Your task to perform on an android device: Show me productivity apps on the Play Store Image 0: 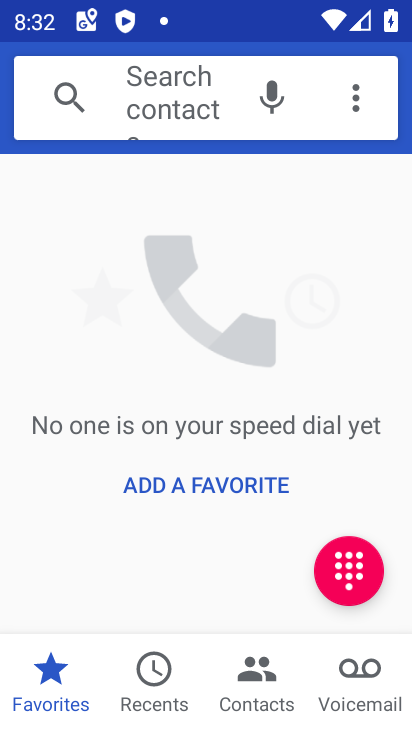
Step 0: press home button
Your task to perform on an android device: Show me productivity apps on the Play Store Image 1: 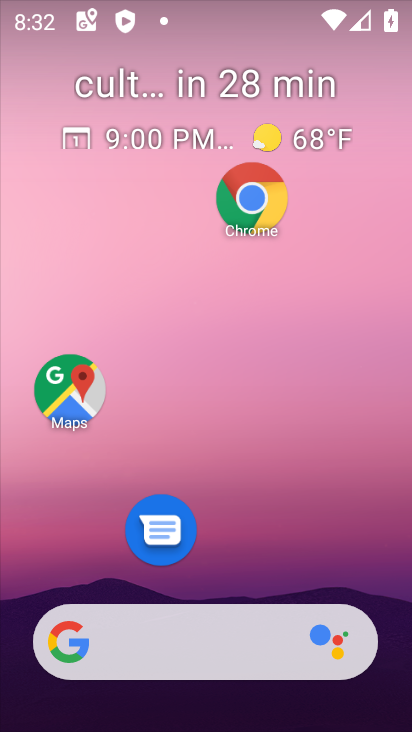
Step 1: drag from (219, 567) to (197, 200)
Your task to perform on an android device: Show me productivity apps on the Play Store Image 2: 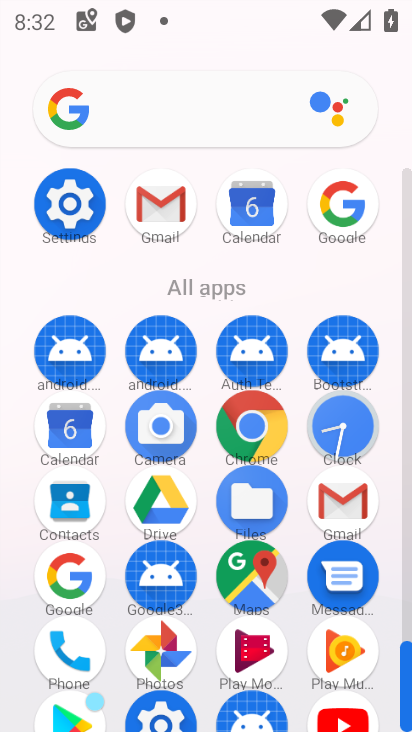
Step 2: drag from (102, 648) to (125, 339)
Your task to perform on an android device: Show me productivity apps on the Play Store Image 3: 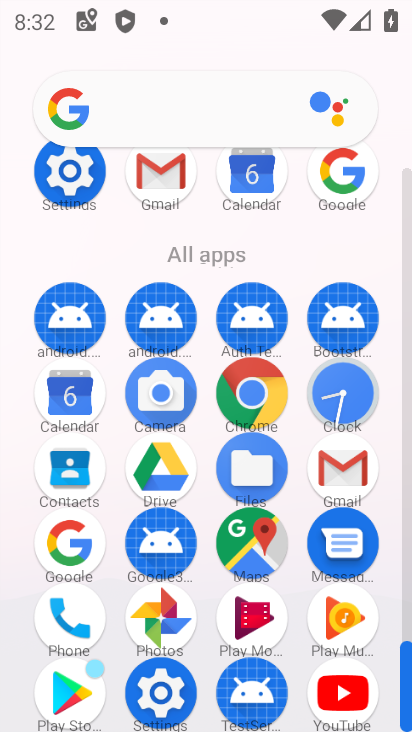
Step 3: click (85, 673)
Your task to perform on an android device: Show me productivity apps on the Play Store Image 4: 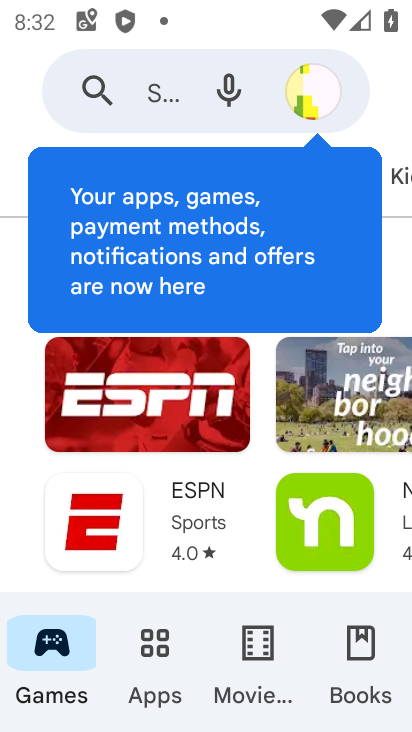
Step 4: click (143, 668)
Your task to perform on an android device: Show me productivity apps on the Play Store Image 5: 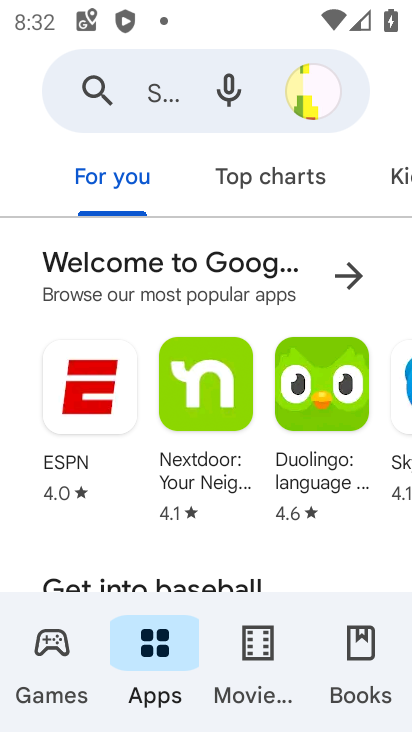
Step 5: drag from (296, 179) to (131, 179)
Your task to perform on an android device: Show me productivity apps on the Play Store Image 6: 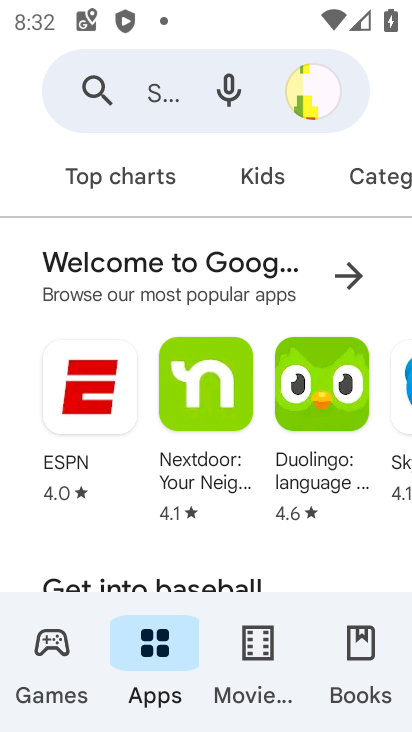
Step 6: drag from (317, 178) to (178, 181)
Your task to perform on an android device: Show me productivity apps on the Play Store Image 7: 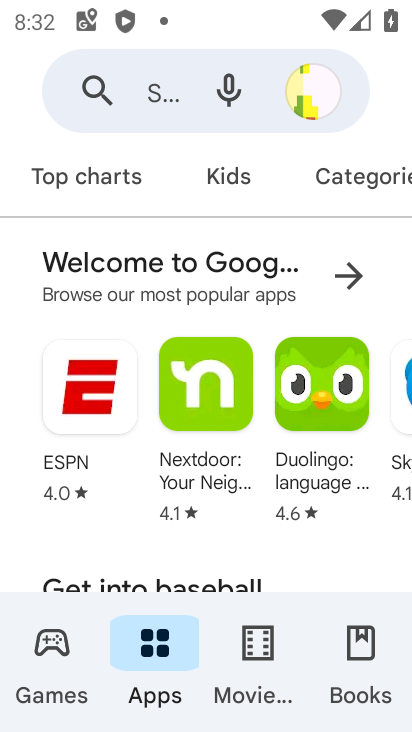
Step 7: drag from (243, 176) to (99, 180)
Your task to perform on an android device: Show me productivity apps on the Play Store Image 8: 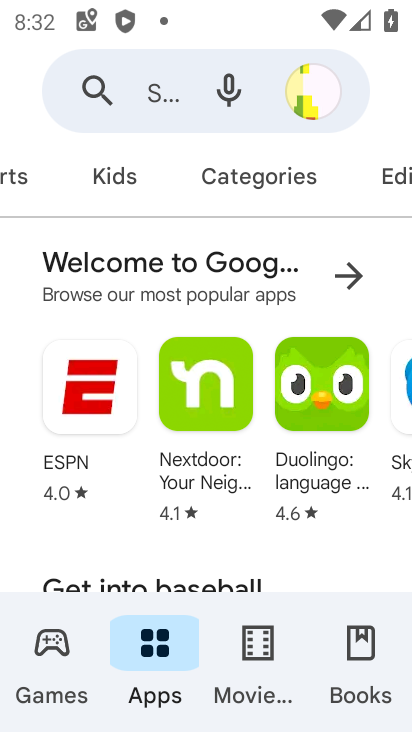
Step 8: click (256, 177)
Your task to perform on an android device: Show me productivity apps on the Play Store Image 9: 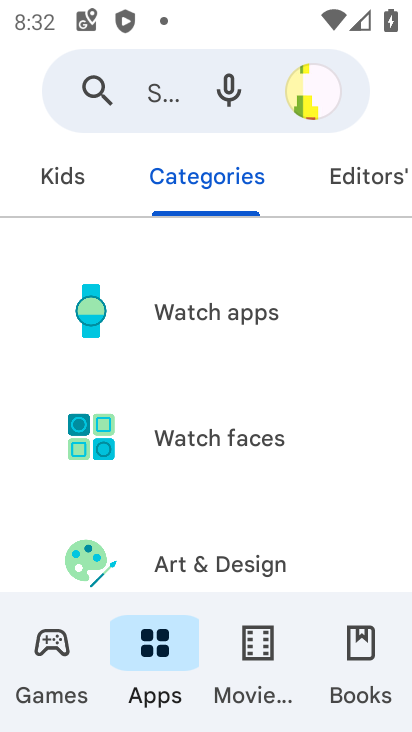
Step 9: drag from (243, 530) to (274, 236)
Your task to perform on an android device: Show me productivity apps on the Play Store Image 10: 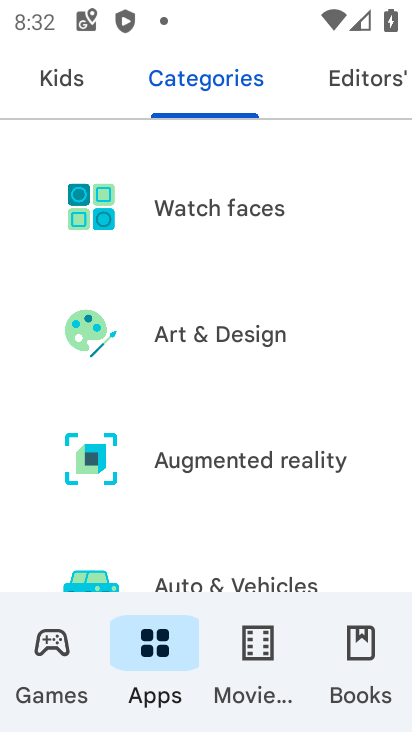
Step 10: drag from (258, 504) to (281, 207)
Your task to perform on an android device: Show me productivity apps on the Play Store Image 11: 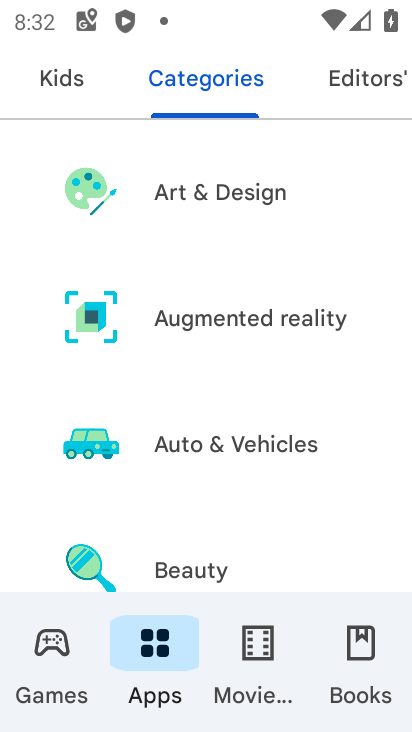
Step 11: drag from (269, 444) to (280, 189)
Your task to perform on an android device: Show me productivity apps on the Play Store Image 12: 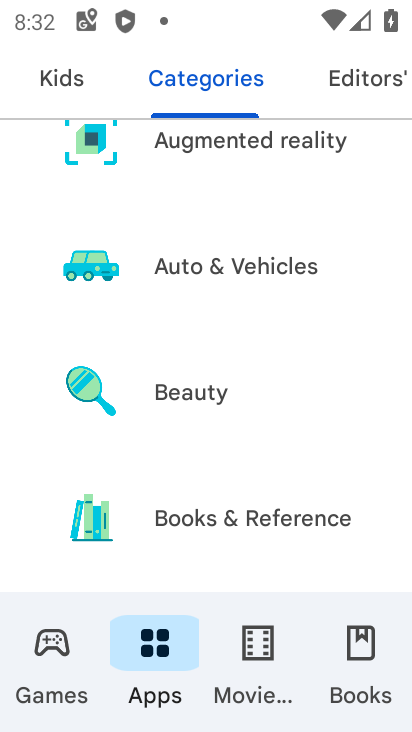
Step 12: drag from (257, 486) to (270, 237)
Your task to perform on an android device: Show me productivity apps on the Play Store Image 13: 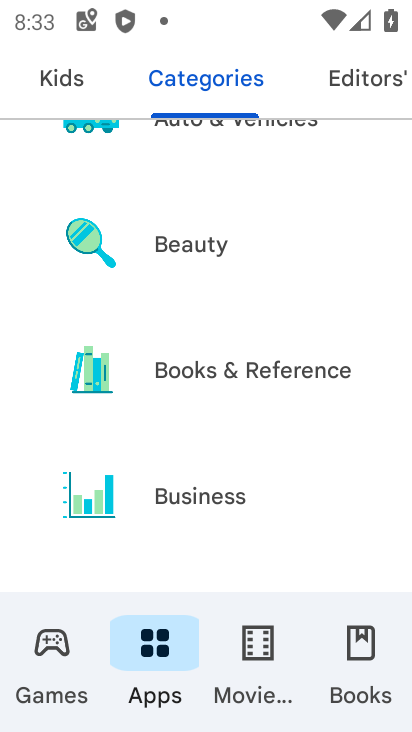
Step 13: drag from (251, 508) to (283, 237)
Your task to perform on an android device: Show me productivity apps on the Play Store Image 14: 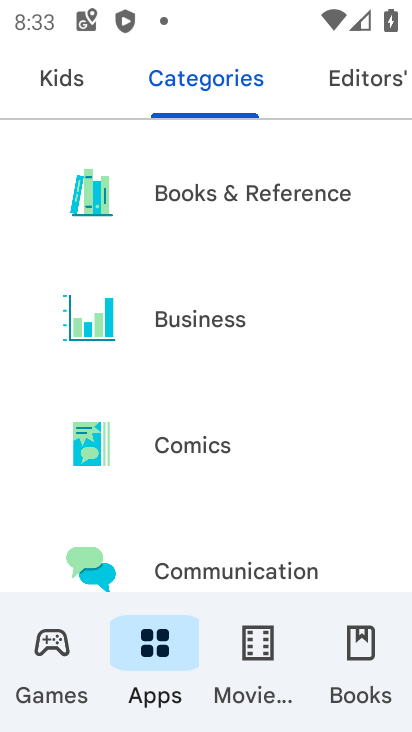
Step 14: drag from (234, 474) to (265, 228)
Your task to perform on an android device: Show me productivity apps on the Play Store Image 15: 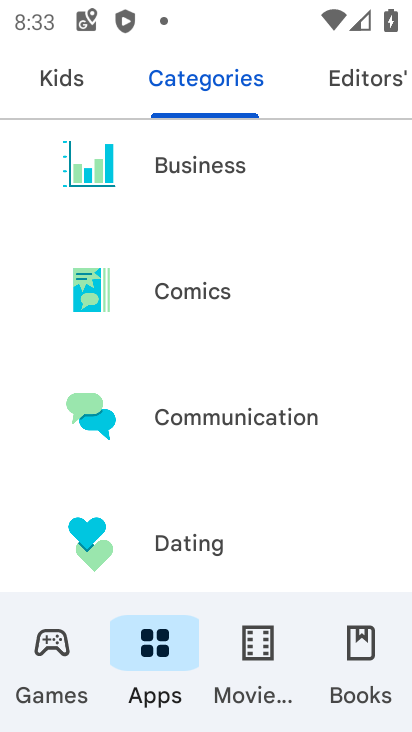
Step 15: drag from (272, 527) to (315, 245)
Your task to perform on an android device: Show me productivity apps on the Play Store Image 16: 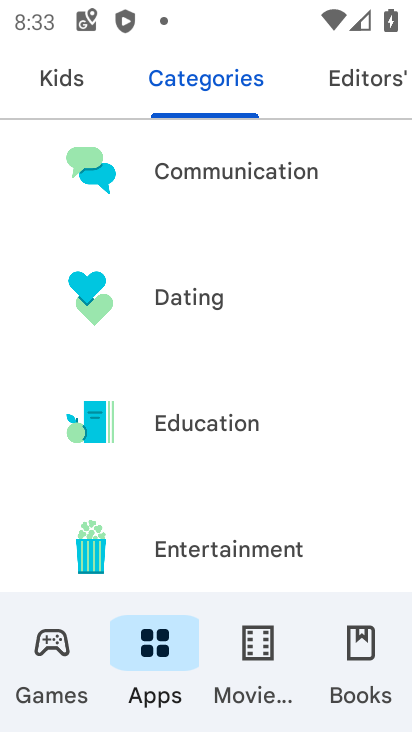
Step 16: drag from (298, 480) to (303, 221)
Your task to perform on an android device: Show me productivity apps on the Play Store Image 17: 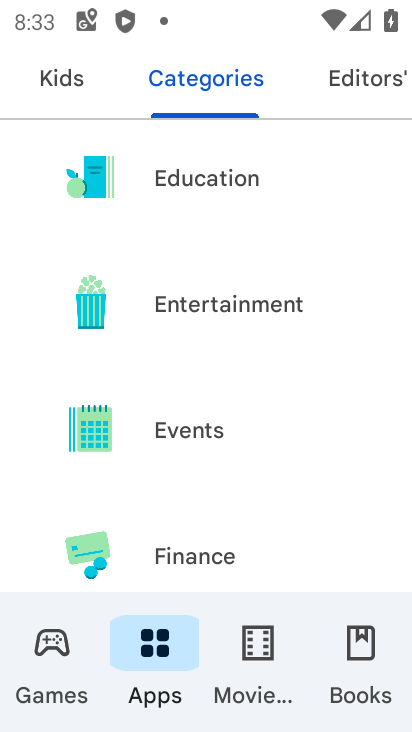
Step 17: drag from (304, 475) to (304, 252)
Your task to perform on an android device: Show me productivity apps on the Play Store Image 18: 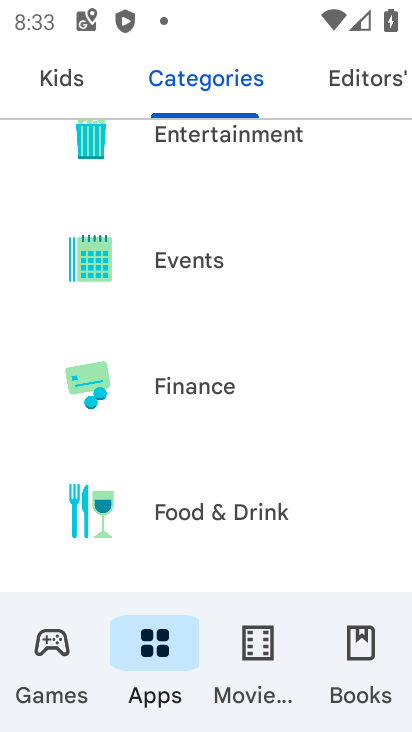
Step 18: drag from (282, 537) to (286, 217)
Your task to perform on an android device: Show me productivity apps on the Play Store Image 19: 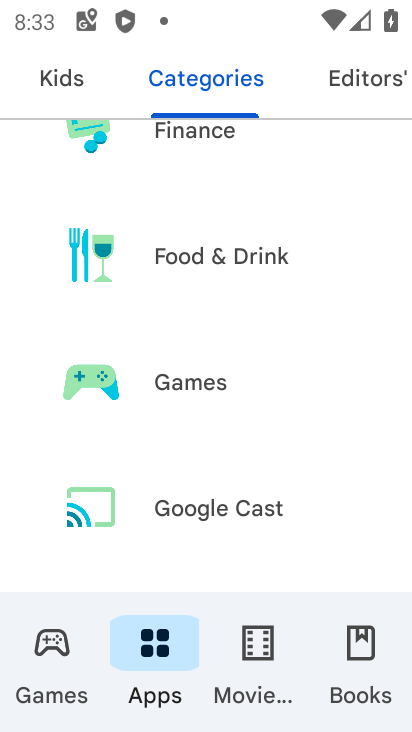
Step 19: drag from (286, 484) to (255, 158)
Your task to perform on an android device: Show me productivity apps on the Play Store Image 20: 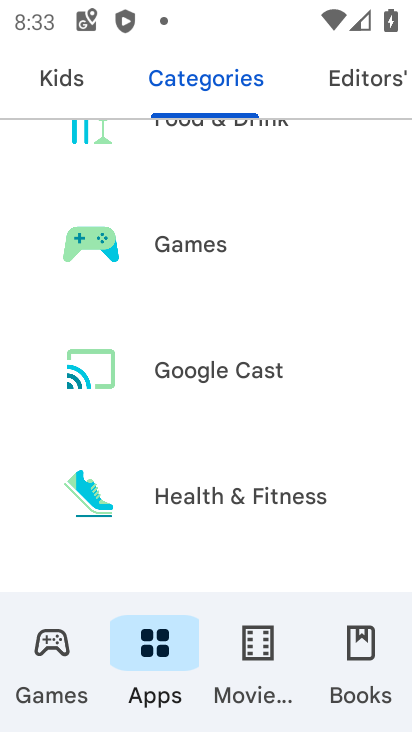
Step 20: drag from (267, 471) to (282, 181)
Your task to perform on an android device: Show me productivity apps on the Play Store Image 21: 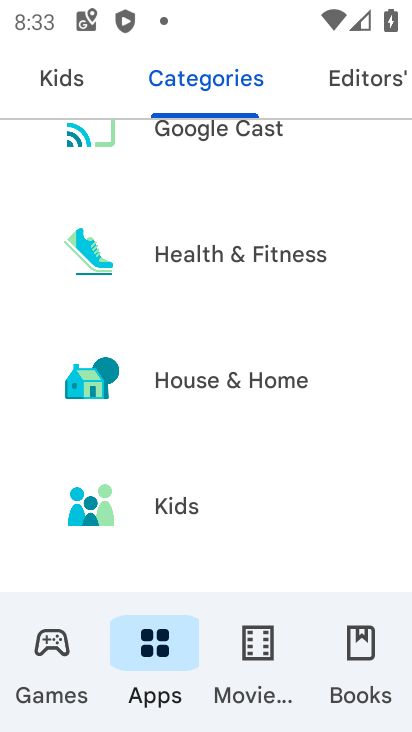
Step 21: drag from (255, 486) to (271, 157)
Your task to perform on an android device: Show me productivity apps on the Play Store Image 22: 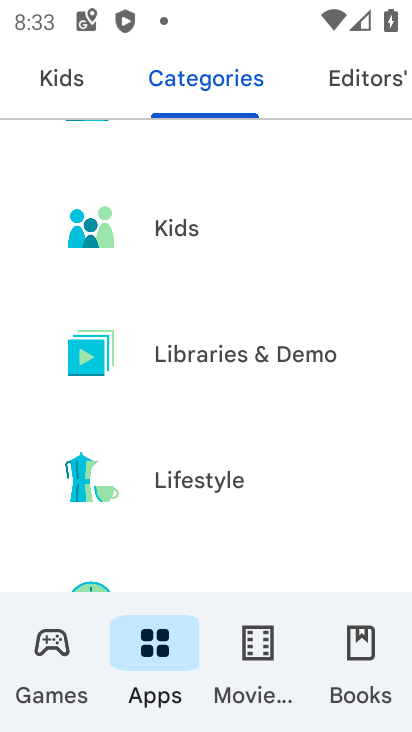
Step 22: drag from (271, 519) to (258, 220)
Your task to perform on an android device: Show me productivity apps on the Play Store Image 23: 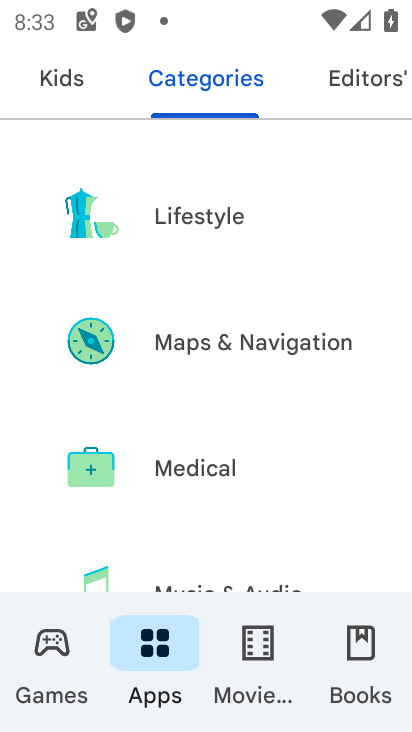
Step 23: drag from (253, 508) to (254, 199)
Your task to perform on an android device: Show me productivity apps on the Play Store Image 24: 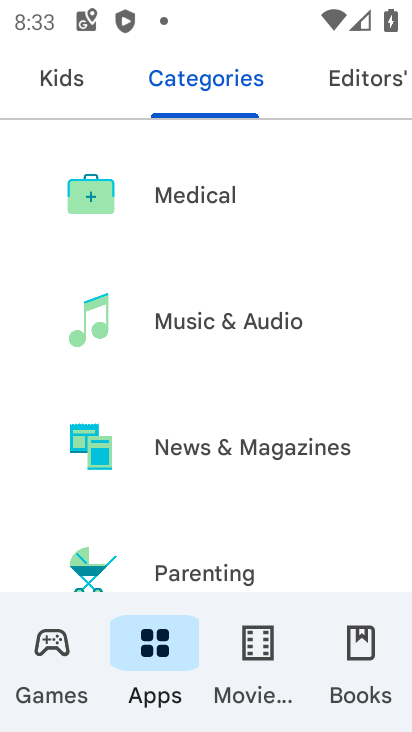
Step 24: drag from (279, 478) to (286, 201)
Your task to perform on an android device: Show me productivity apps on the Play Store Image 25: 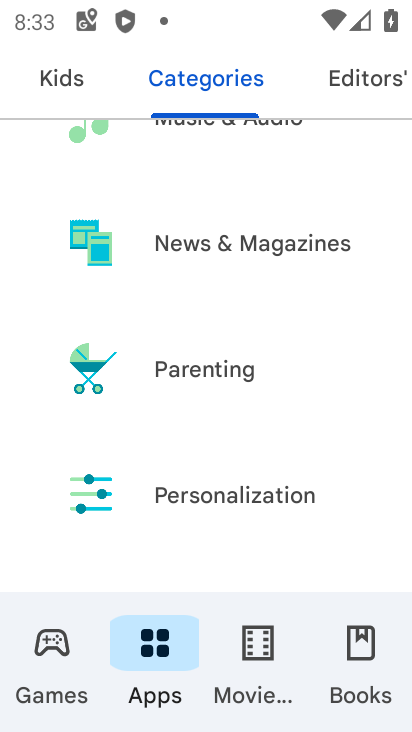
Step 25: drag from (262, 491) to (275, 289)
Your task to perform on an android device: Show me productivity apps on the Play Store Image 26: 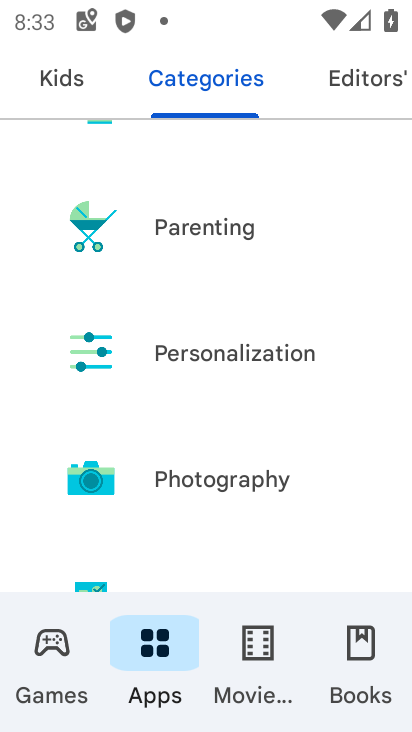
Step 26: drag from (250, 552) to (263, 331)
Your task to perform on an android device: Show me productivity apps on the Play Store Image 27: 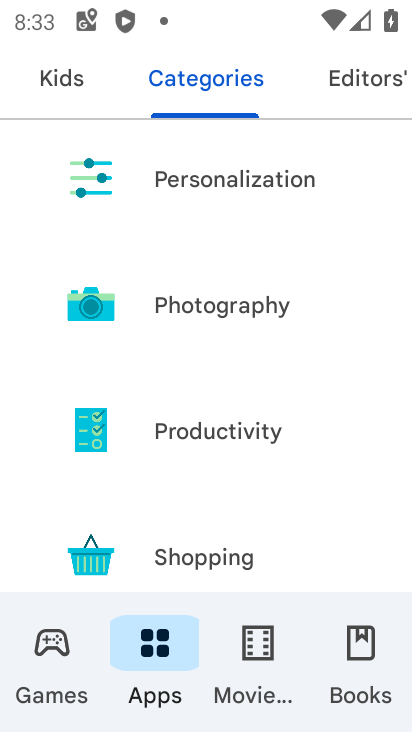
Step 27: click (228, 425)
Your task to perform on an android device: Show me productivity apps on the Play Store Image 28: 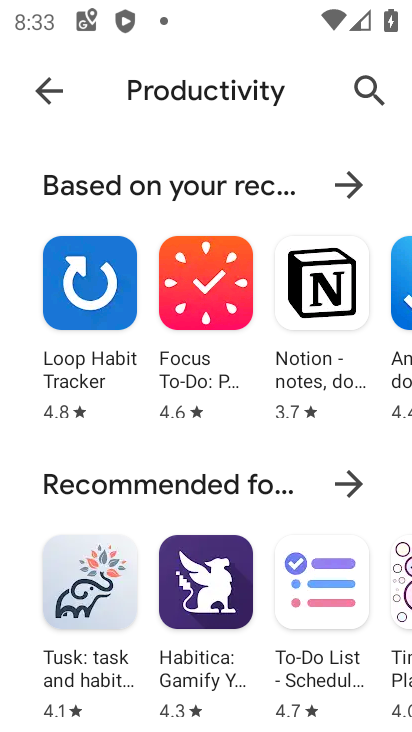
Step 28: task complete